Your task to perform on an android device: find photos in the google photos app Image 0: 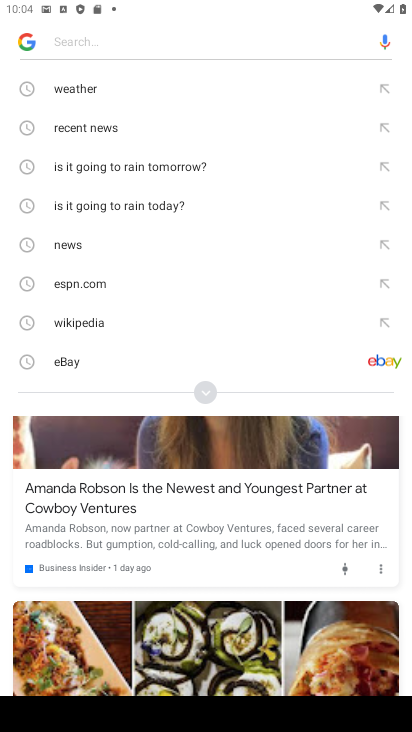
Step 0: press home button
Your task to perform on an android device: find photos in the google photos app Image 1: 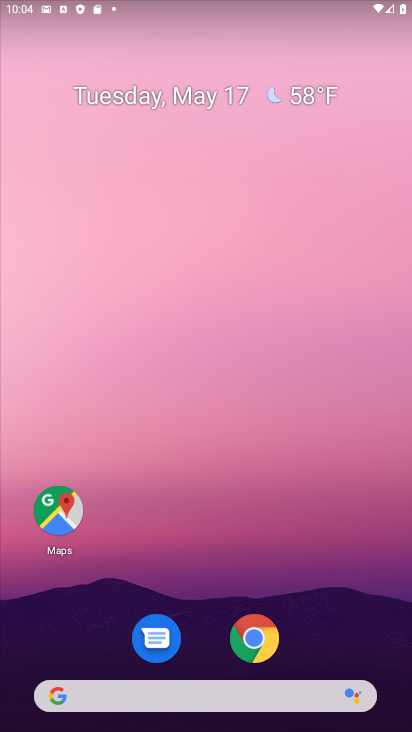
Step 1: drag from (201, 663) to (314, 50)
Your task to perform on an android device: find photos in the google photos app Image 2: 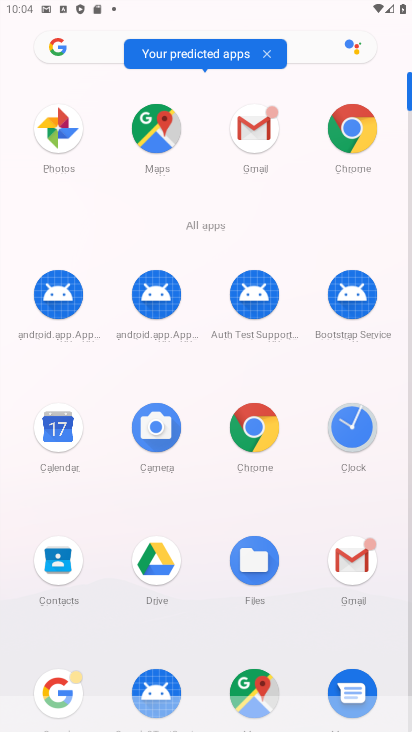
Step 2: click (41, 131)
Your task to perform on an android device: find photos in the google photos app Image 3: 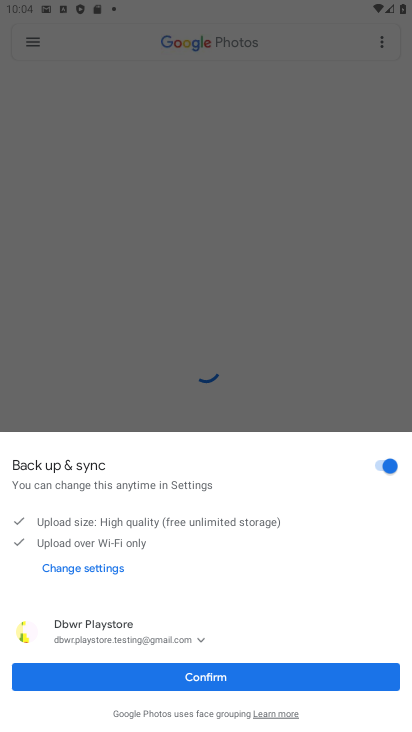
Step 3: click (194, 681)
Your task to perform on an android device: find photos in the google photos app Image 4: 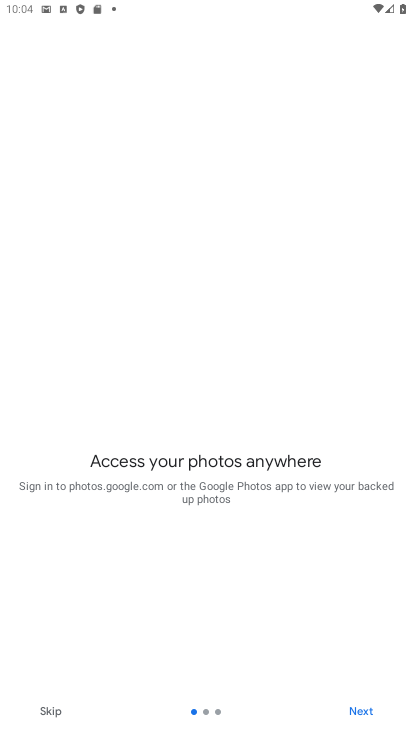
Step 4: click (353, 714)
Your task to perform on an android device: find photos in the google photos app Image 5: 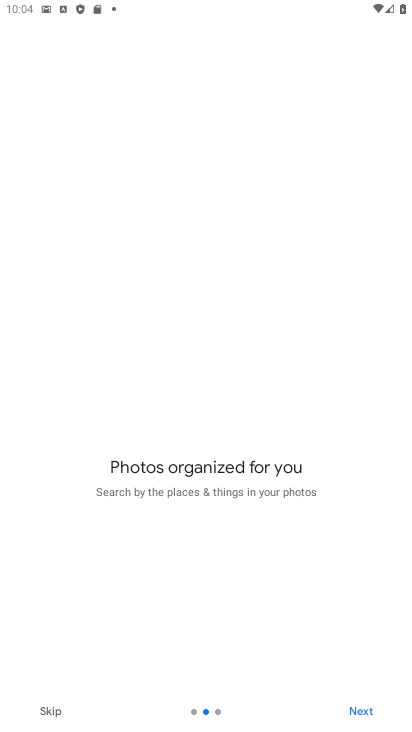
Step 5: click (353, 714)
Your task to perform on an android device: find photos in the google photos app Image 6: 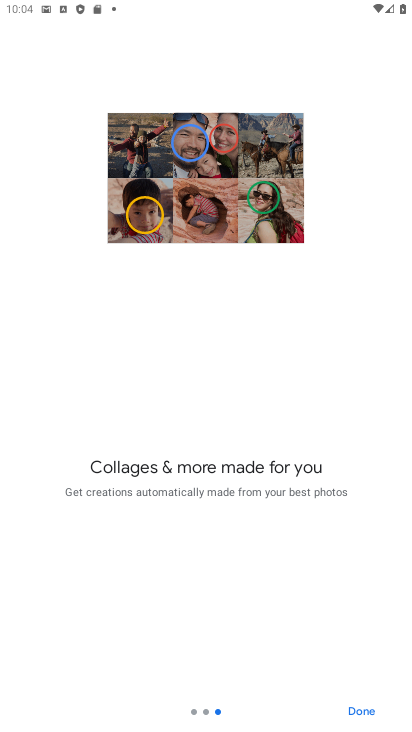
Step 6: click (353, 714)
Your task to perform on an android device: find photos in the google photos app Image 7: 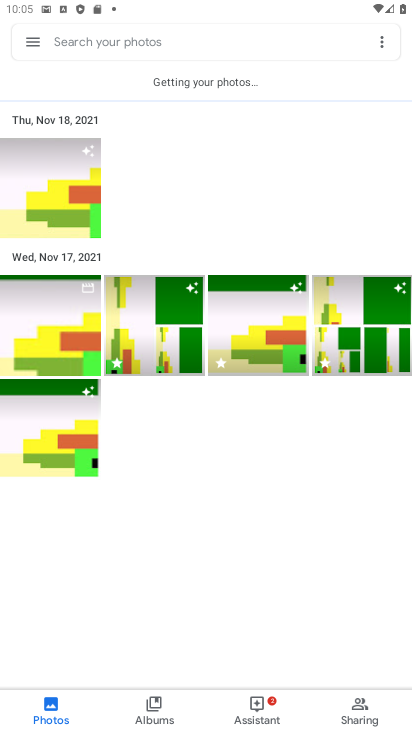
Step 7: task complete